Your task to perform on an android device: Open display settings Image 0: 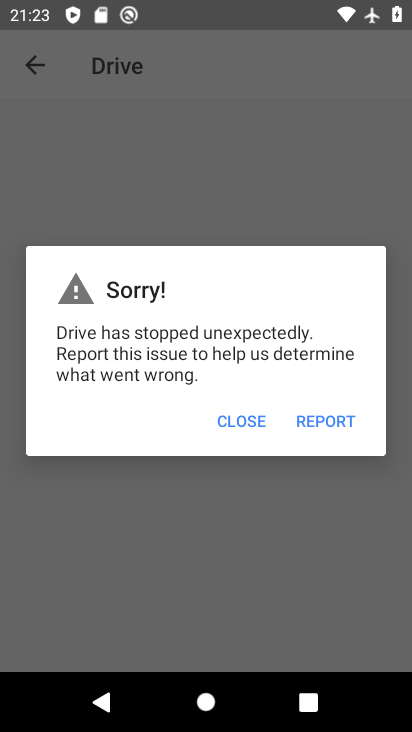
Step 0: press home button
Your task to perform on an android device: Open display settings Image 1: 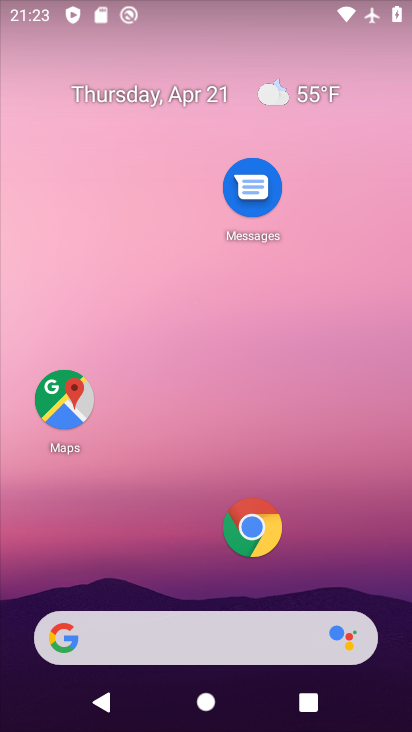
Step 1: drag from (163, 637) to (333, 39)
Your task to perform on an android device: Open display settings Image 2: 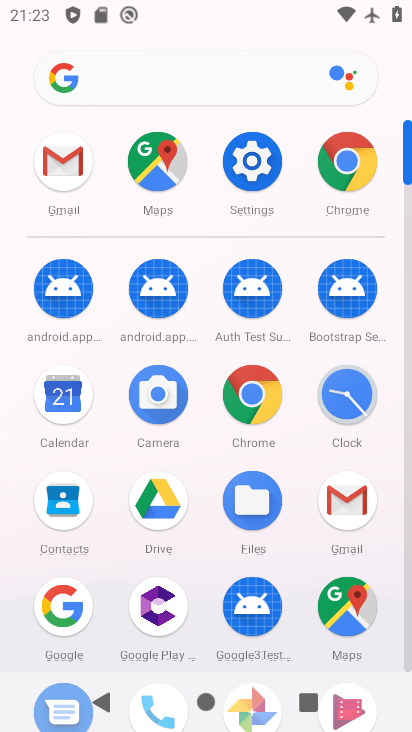
Step 2: click (257, 169)
Your task to perform on an android device: Open display settings Image 3: 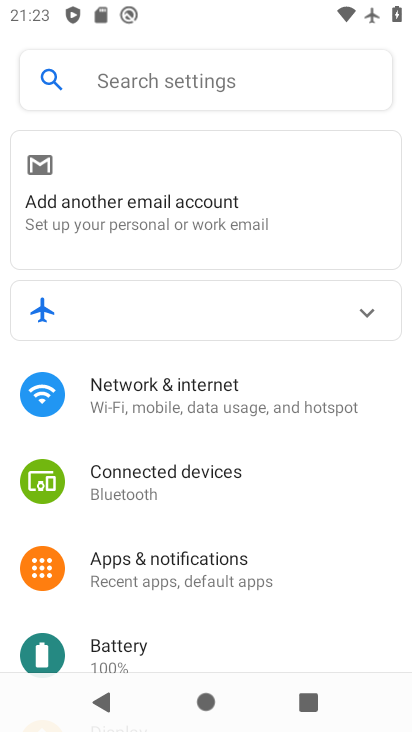
Step 3: drag from (187, 628) to (300, 239)
Your task to perform on an android device: Open display settings Image 4: 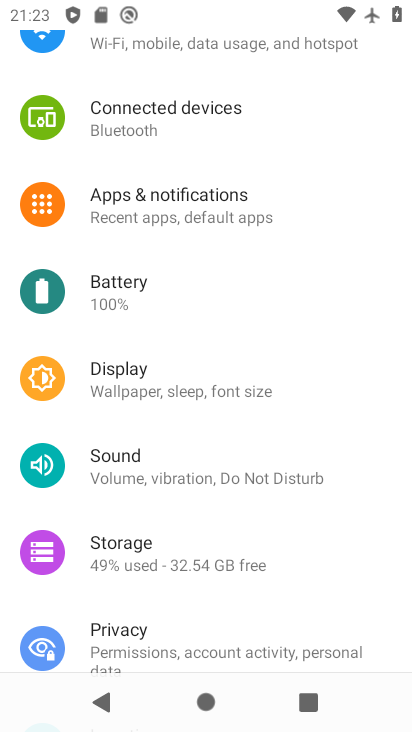
Step 4: click (173, 388)
Your task to perform on an android device: Open display settings Image 5: 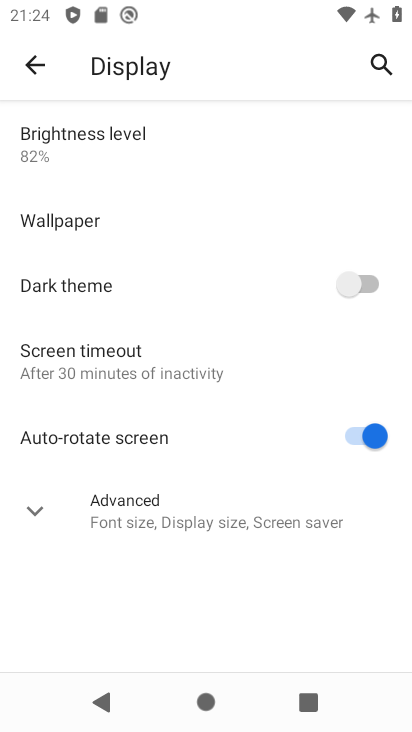
Step 5: task complete